Your task to perform on an android device: turn on notifications settings in the gmail app Image 0: 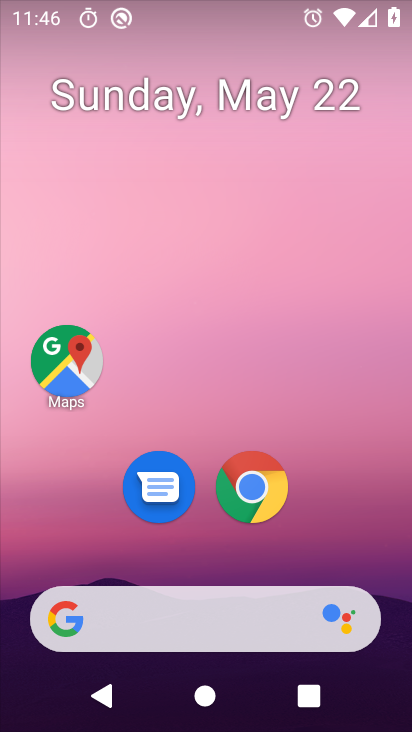
Step 0: drag from (378, 541) to (328, 228)
Your task to perform on an android device: turn on notifications settings in the gmail app Image 1: 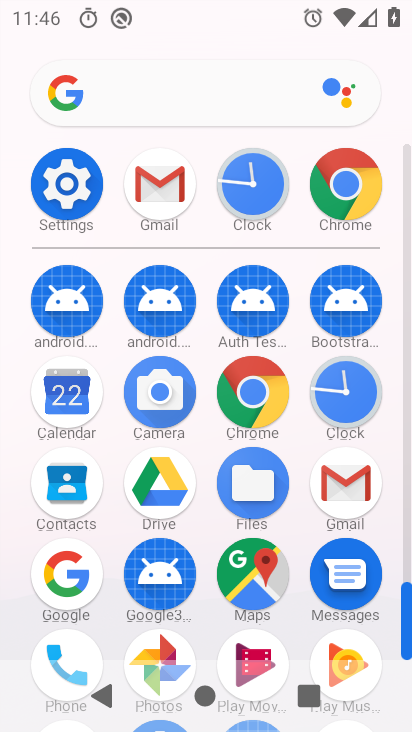
Step 1: click (353, 505)
Your task to perform on an android device: turn on notifications settings in the gmail app Image 2: 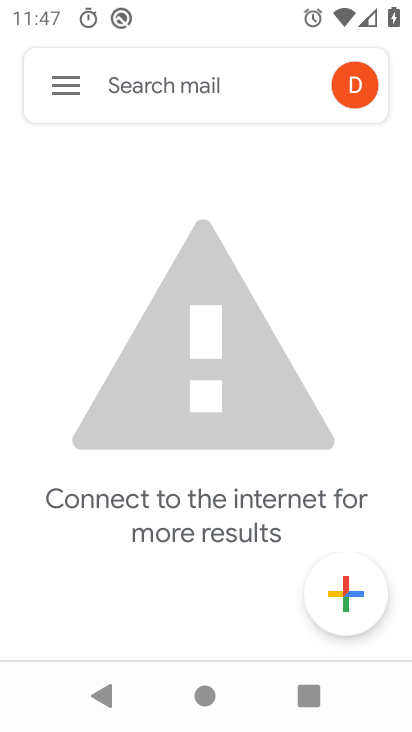
Step 2: click (57, 73)
Your task to perform on an android device: turn on notifications settings in the gmail app Image 3: 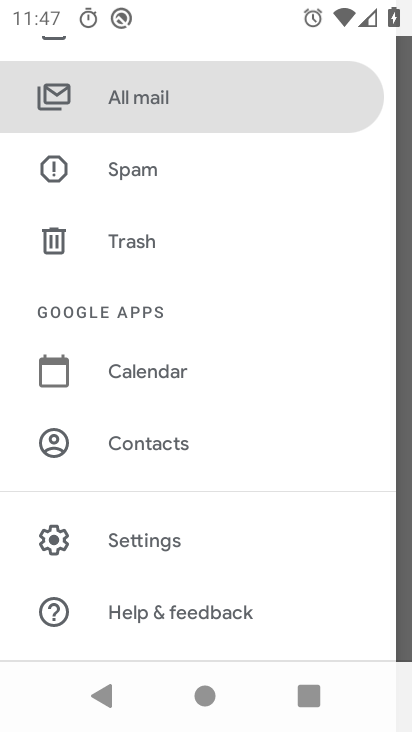
Step 3: click (142, 548)
Your task to perform on an android device: turn on notifications settings in the gmail app Image 4: 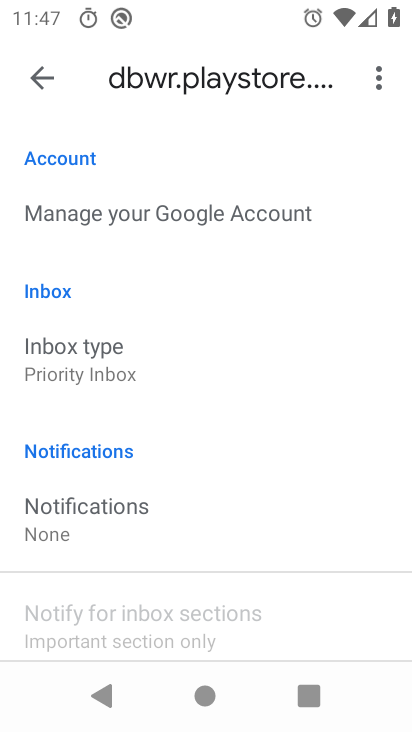
Step 4: click (119, 502)
Your task to perform on an android device: turn on notifications settings in the gmail app Image 5: 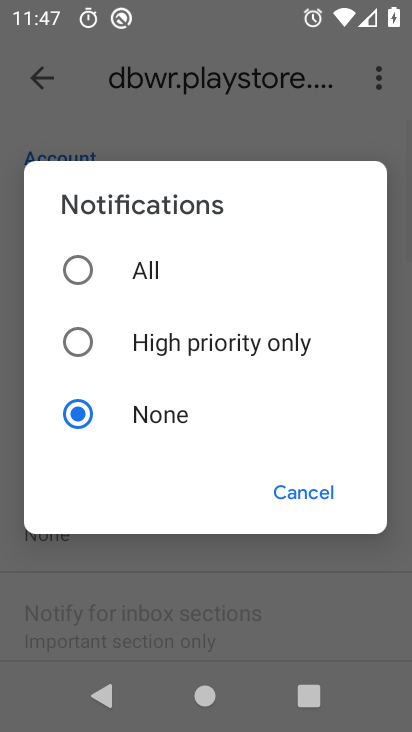
Step 5: click (84, 265)
Your task to perform on an android device: turn on notifications settings in the gmail app Image 6: 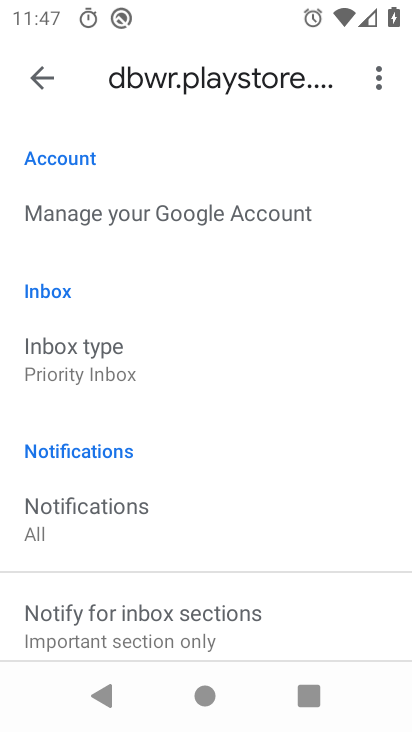
Step 6: task complete